Your task to perform on an android device: set an alarm Image 0: 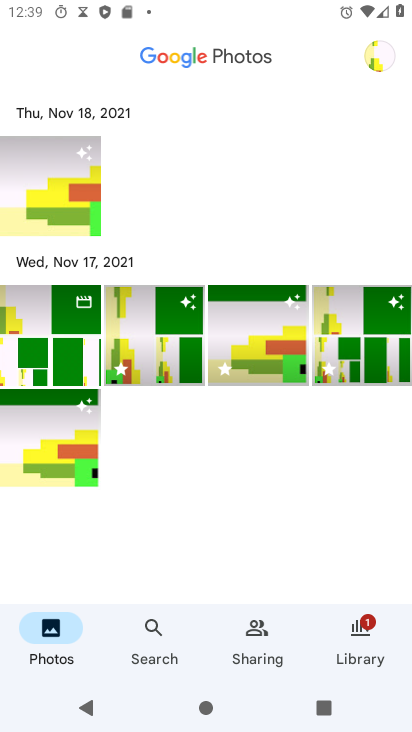
Step 0: press home button
Your task to perform on an android device: set an alarm Image 1: 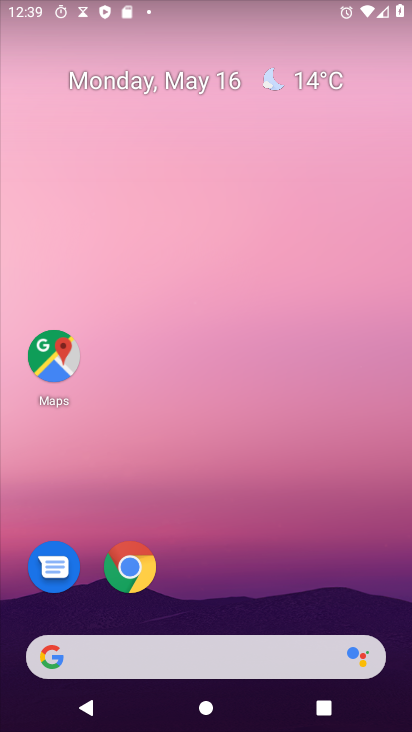
Step 1: drag from (270, 604) to (244, 89)
Your task to perform on an android device: set an alarm Image 2: 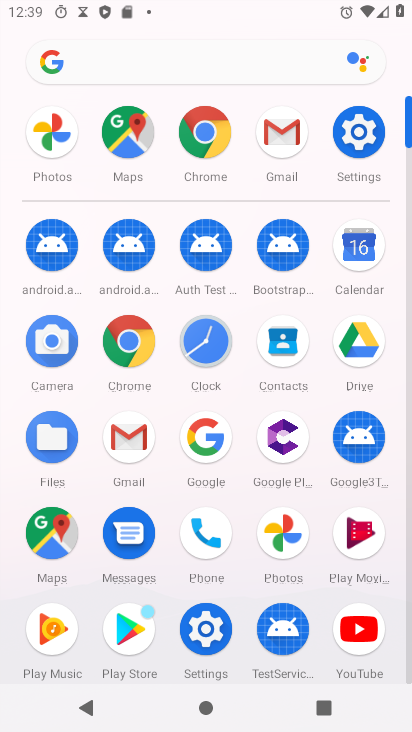
Step 2: click (217, 337)
Your task to perform on an android device: set an alarm Image 3: 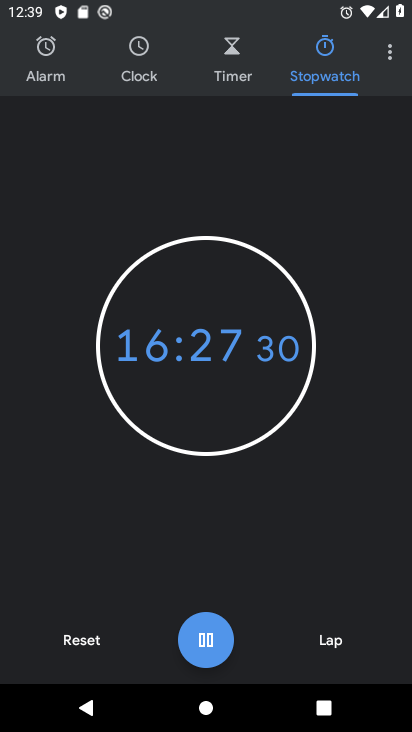
Step 3: click (40, 75)
Your task to perform on an android device: set an alarm Image 4: 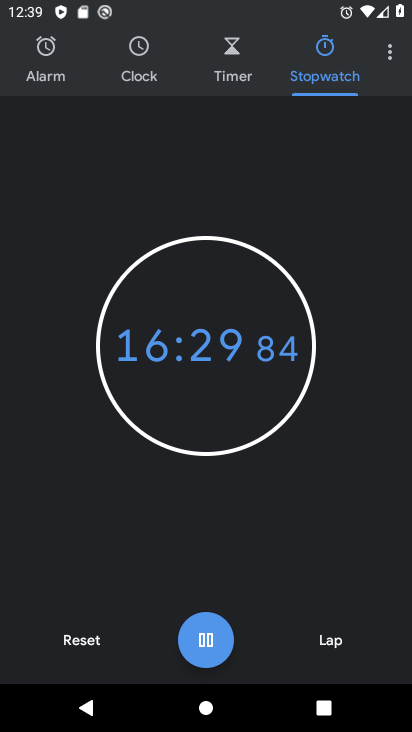
Step 4: click (40, 54)
Your task to perform on an android device: set an alarm Image 5: 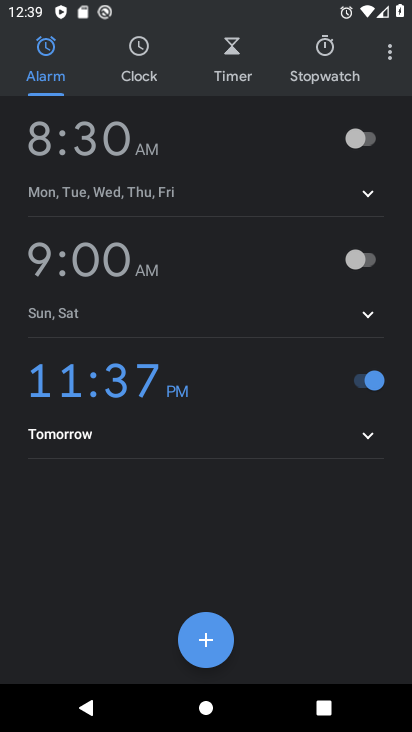
Step 5: click (212, 635)
Your task to perform on an android device: set an alarm Image 6: 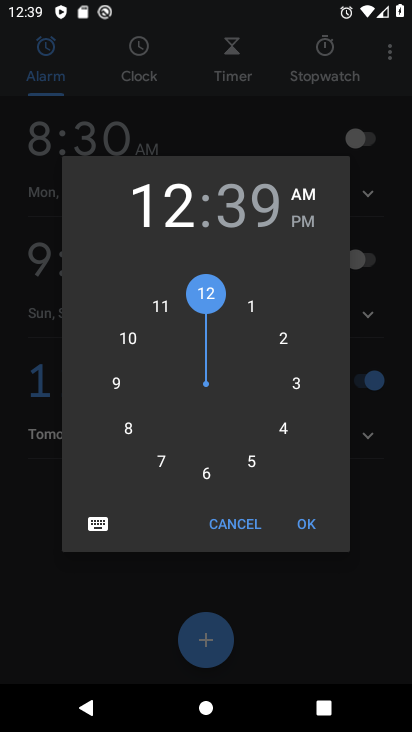
Step 6: click (304, 524)
Your task to perform on an android device: set an alarm Image 7: 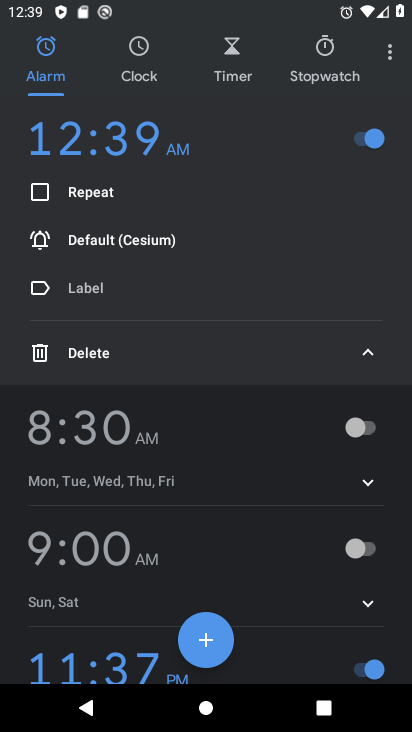
Step 7: click (370, 361)
Your task to perform on an android device: set an alarm Image 8: 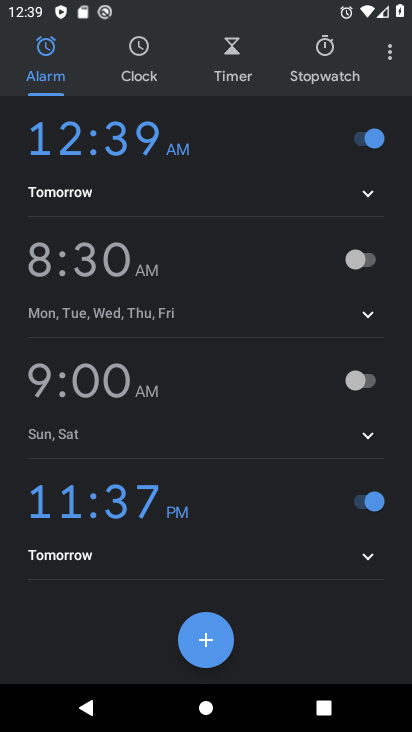
Step 8: task complete